Your task to perform on an android device: turn on javascript in the chrome app Image 0: 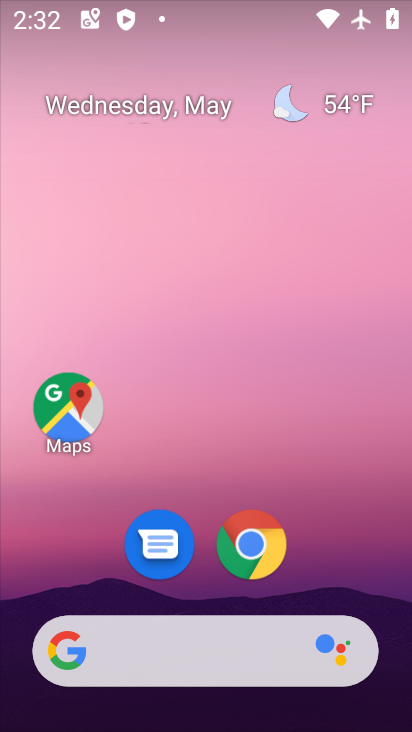
Step 0: click (253, 540)
Your task to perform on an android device: turn on javascript in the chrome app Image 1: 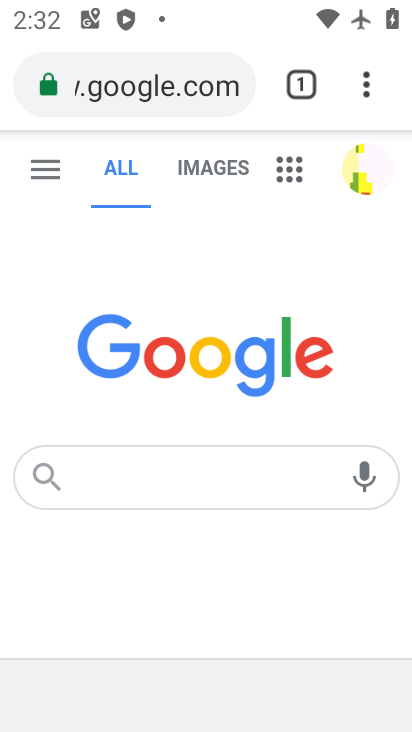
Step 1: click (380, 92)
Your task to perform on an android device: turn on javascript in the chrome app Image 2: 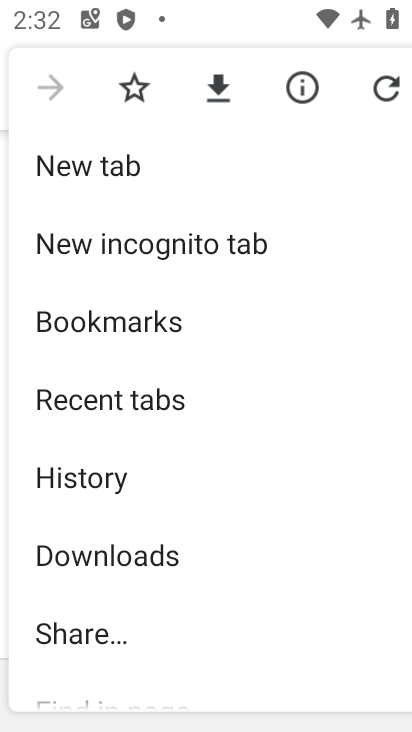
Step 2: drag from (129, 590) to (191, 357)
Your task to perform on an android device: turn on javascript in the chrome app Image 3: 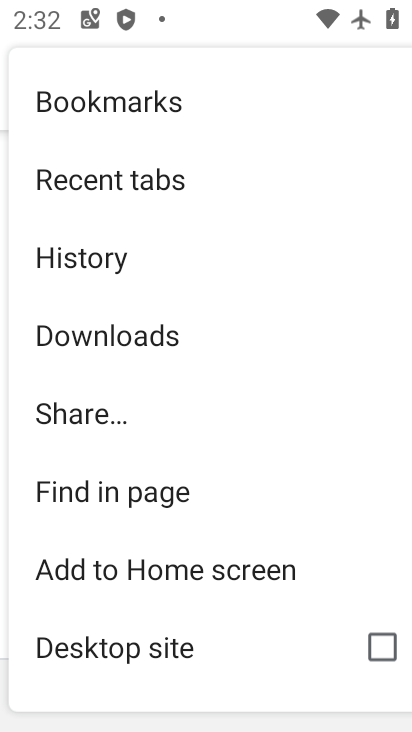
Step 3: drag from (96, 591) to (144, 370)
Your task to perform on an android device: turn on javascript in the chrome app Image 4: 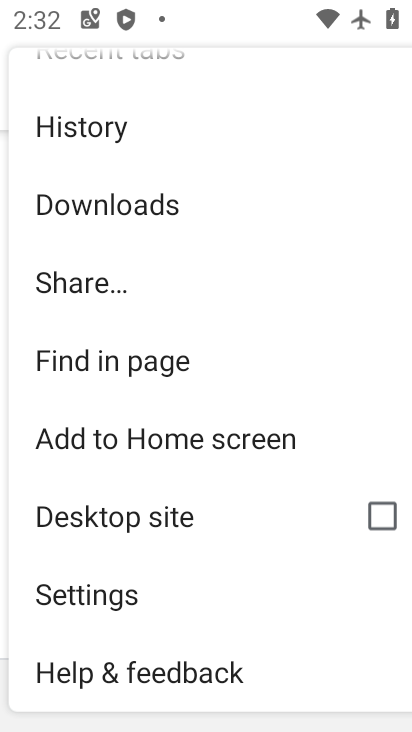
Step 4: click (112, 597)
Your task to perform on an android device: turn on javascript in the chrome app Image 5: 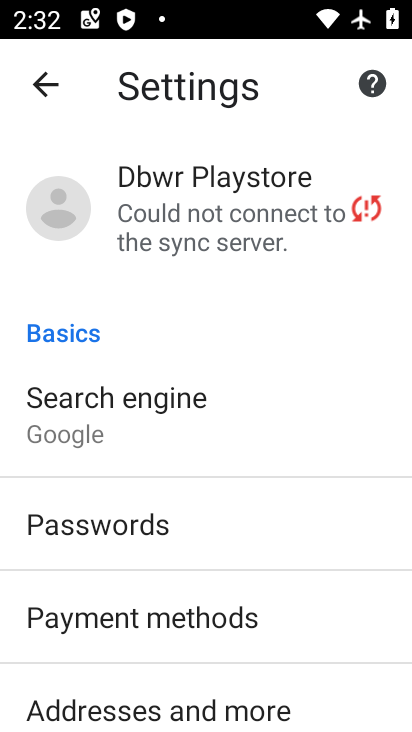
Step 5: drag from (112, 597) to (162, 405)
Your task to perform on an android device: turn on javascript in the chrome app Image 6: 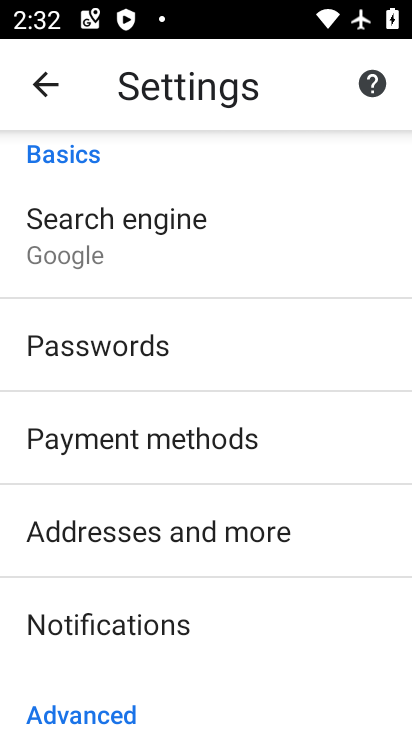
Step 6: drag from (111, 617) to (145, 383)
Your task to perform on an android device: turn on javascript in the chrome app Image 7: 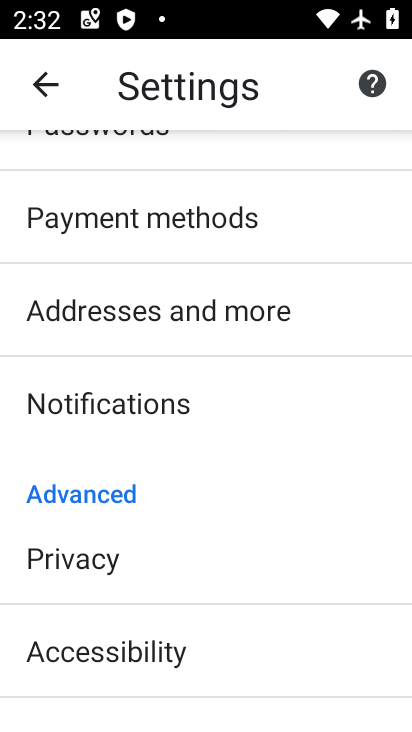
Step 7: drag from (96, 608) to (136, 387)
Your task to perform on an android device: turn on javascript in the chrome app Image 8: 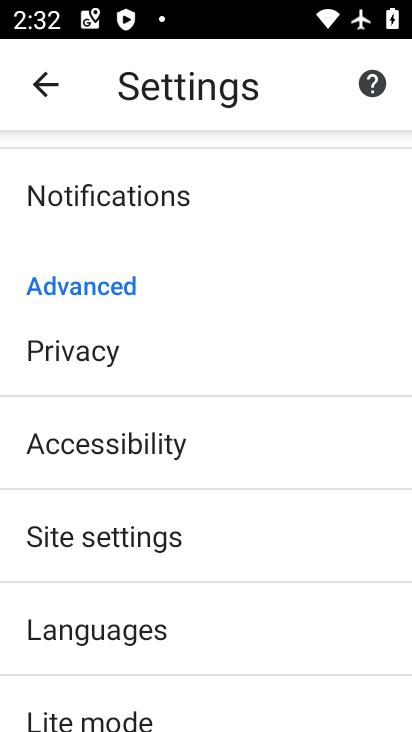
Step 8: click (115, 560)
Your task to perform on an android device: turn on javascript in the chrome app Image 9: 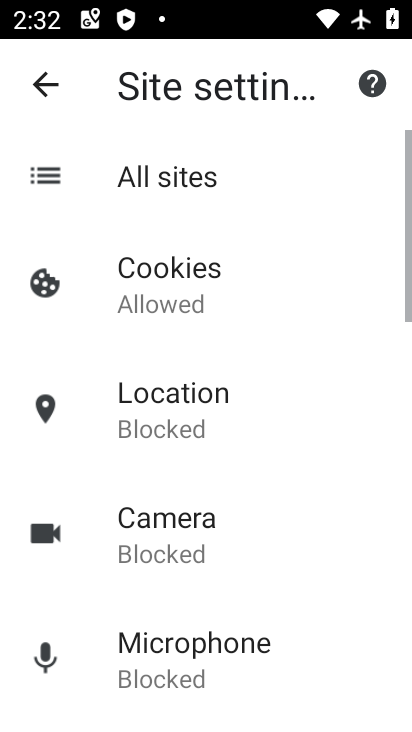
Step 9: drag from (104, 635) to (154, 414)
Your task to perform on an android device: turn on javascript in the chrome app Image 10: 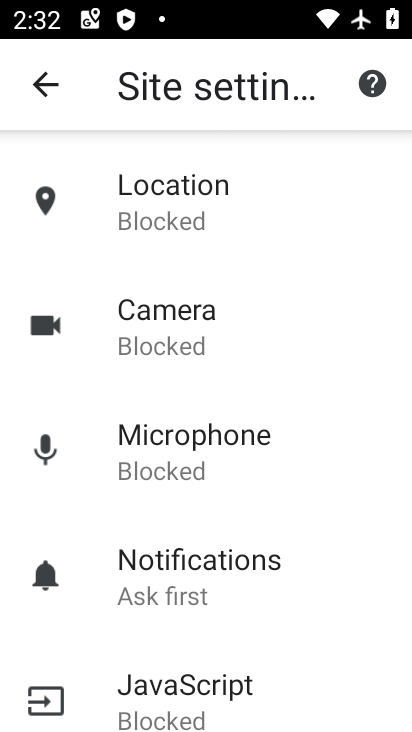
Step 10: drag from (134, 625) to (153, 515)
Your task to perform on an android device: turn on javascript in the chrome app Image 11: 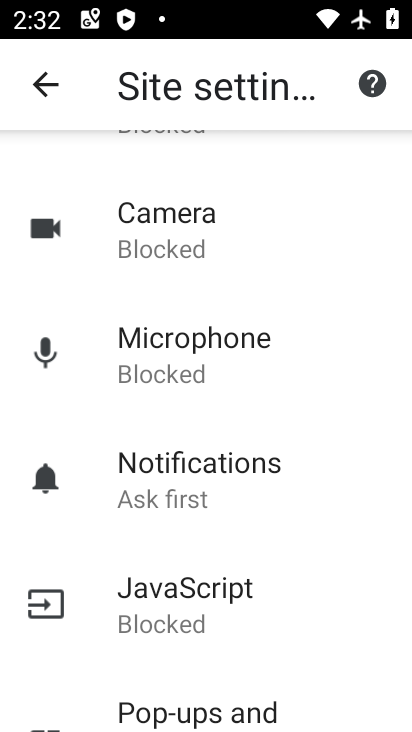
Step 11: click (152, 626)
Your task to perform on an android device: turn on javascript in the chrome app Image 12: 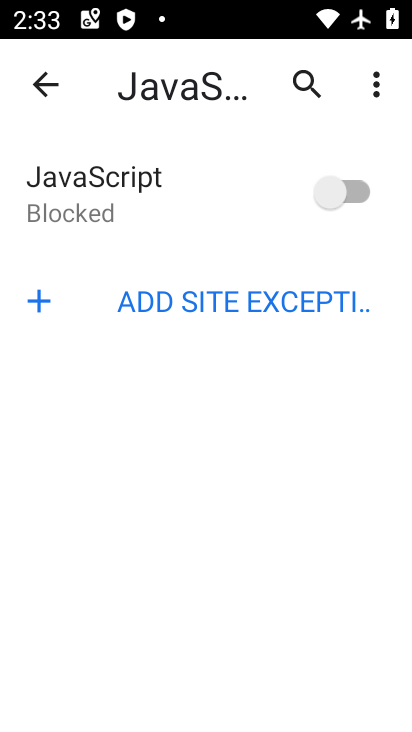
Step 12: click (303, 208)
Your task to perform on an android device: turn on javascript in the chrome app Image 13: 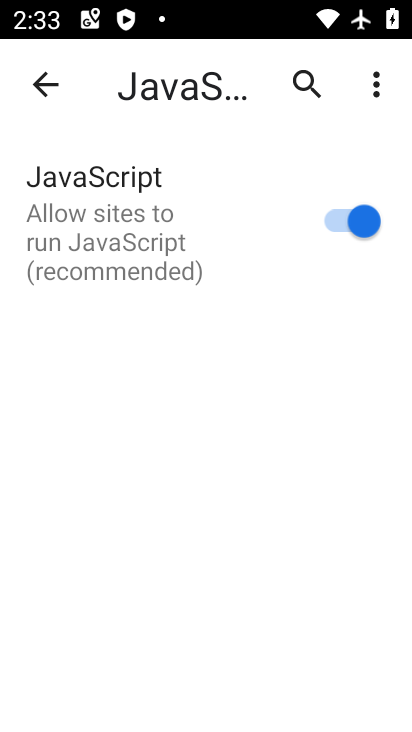
Step 13: task complete